Your task to perform on an android device: Open calendar and show me the fourth week of next month Image 0: 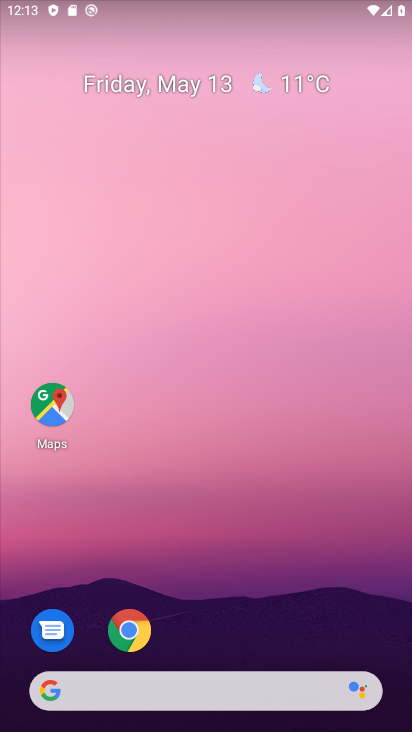
Step 0: press home button
Your task to perform on an android device: Open calendar and show me the fourth week of next month Image 1: 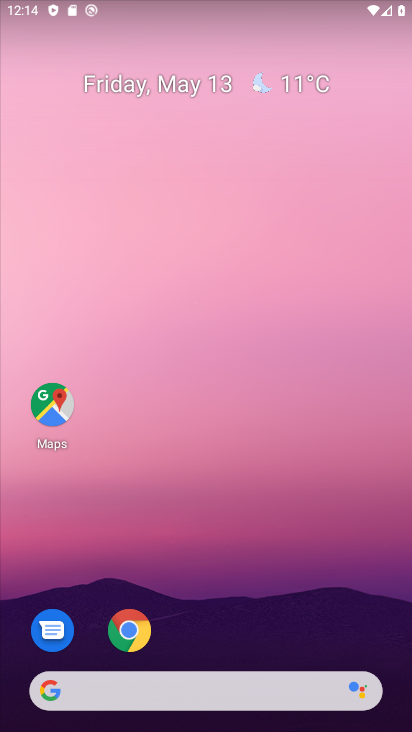
Step 1: click (295, 623)
Your task to perform on an android device: Open calendar and show me the fourth week of next month Image 2: 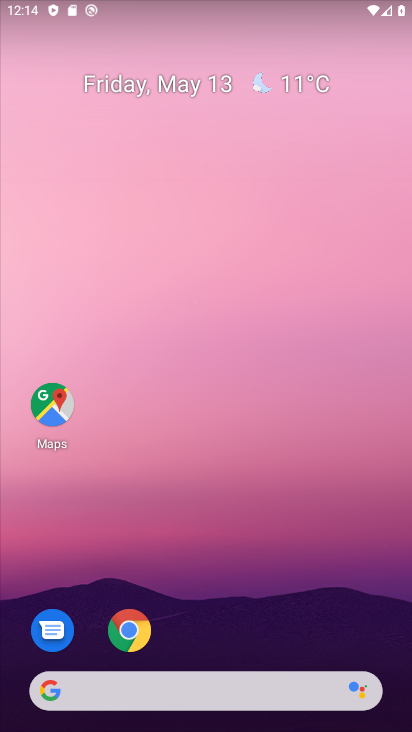
Step 2: drag from (131, 446) to (289, 140)
Your task to perform on an android device: Open calendar and show me the fourth week of next month Image 3: 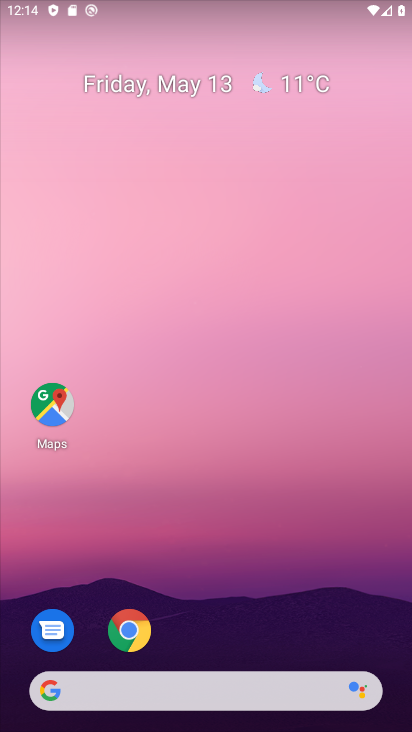
Step 3: drag from (23, 590) to (264, 74)
Your task to perform on an android device: Open calendar and show me the fourth week of next month Image 4: 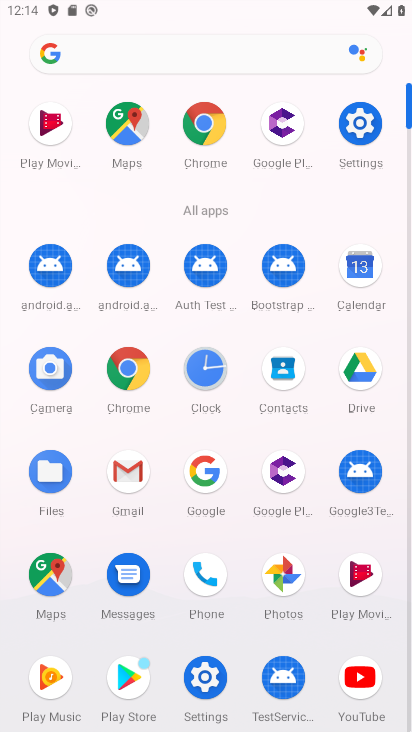
Step 4: click (353, 265)
Your task to perform on an android device: Open calendar and show me the fourth week of next month Image 5: 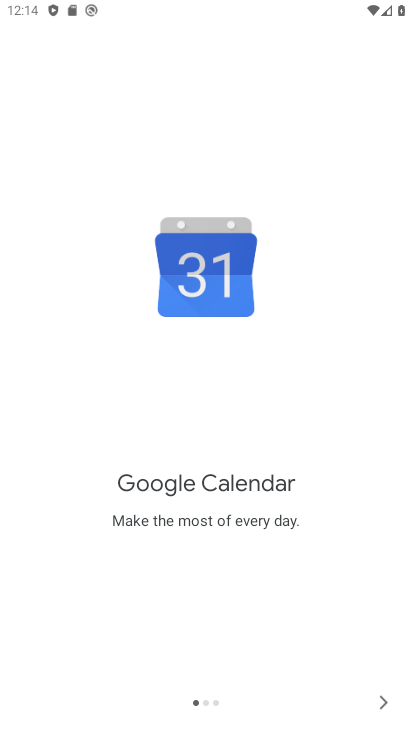
Step 5: click (384, 699)
Your task to perform on an android device: Open calendar and show me the fourth week of next month Image 6: 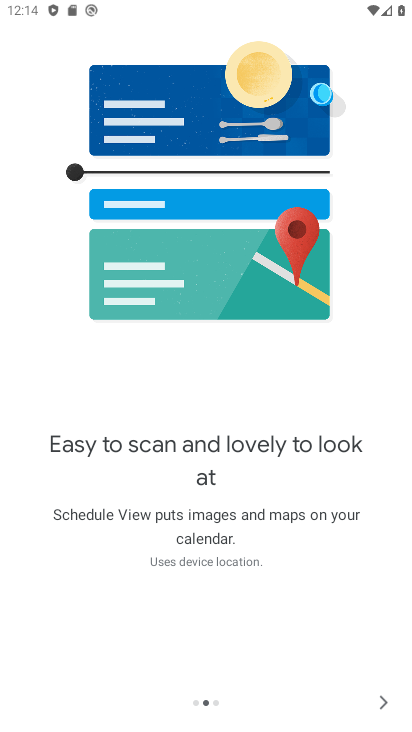
Step 6: click (385, 698)
Your task to perform on an android device: Open calendar and show me the fourth week of next month Image 7: 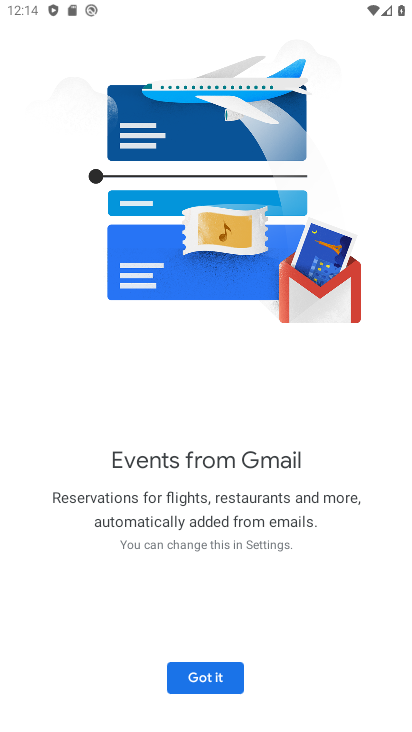
Step 7: click (204, 678)
Your task to perform on an android device: Open calendar and show me the fourth week of next month Image 8: 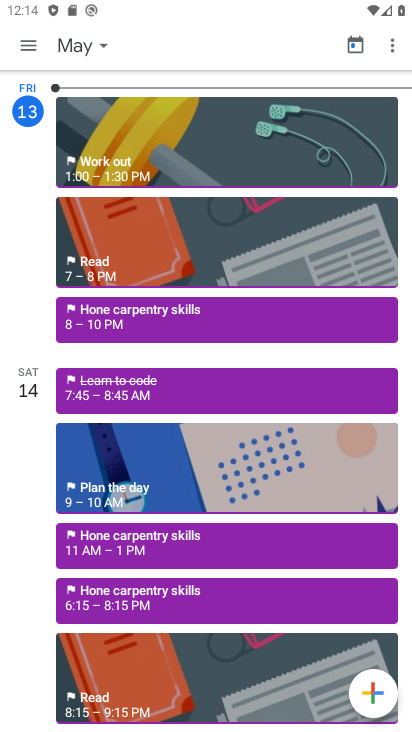
Step 8: click (79, 33)
Your task to perform on an android device: Open calendar and show me the fourth week of next month Image 9: 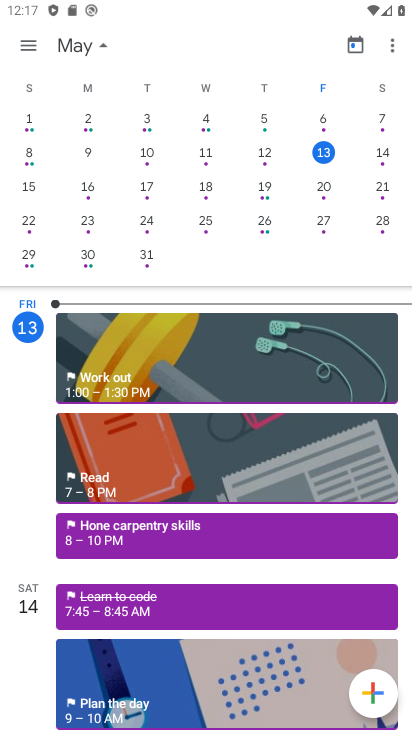
Step 9: task complete